Your task to perform on an android device: Open Yahoo.com Image 0: 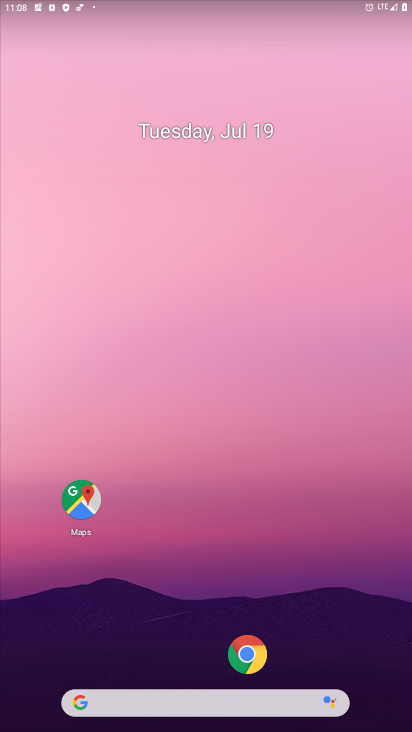
Step 0: click (246, 666)
Your task to perform on an android device: Open Yahoo.com Image 1: 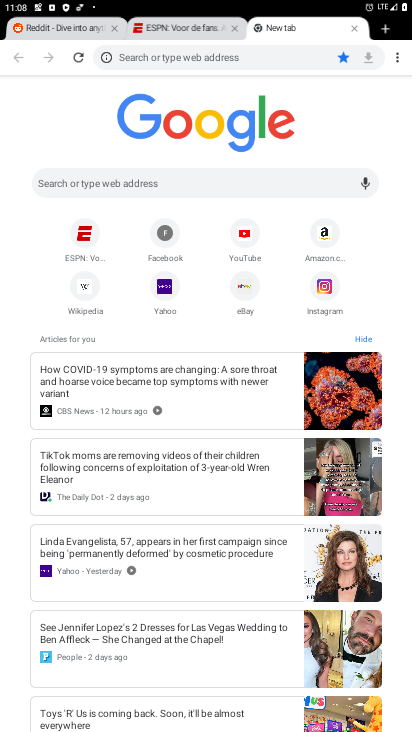
Step 1: click (176, 287)
Your task to perform on an android device: Open Yahoo.com Image 2: 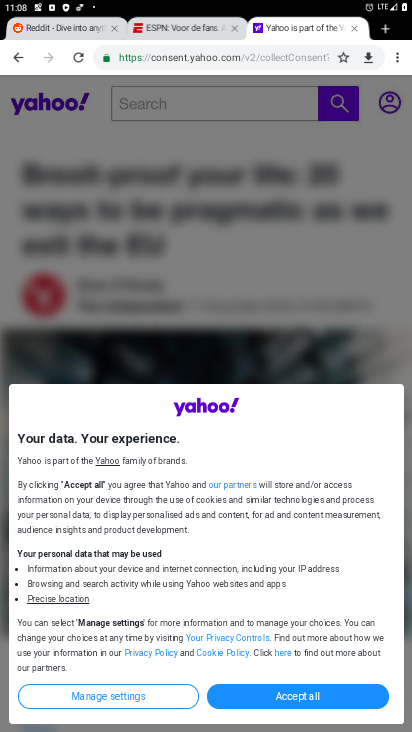
Step 2: task complete